Your task to perform on an android device: Go to ESPN.com Image 0: 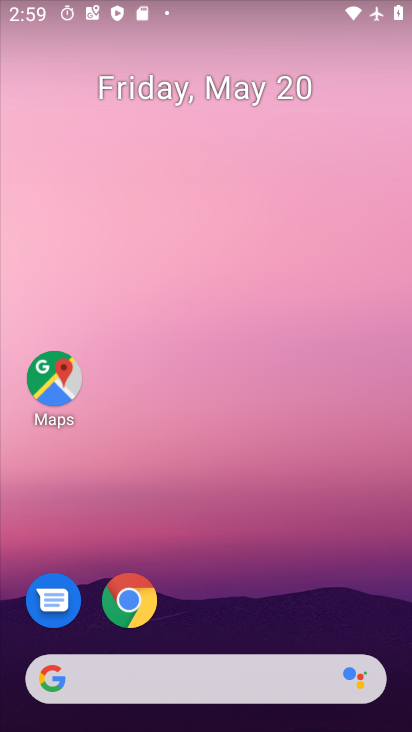
Step 0: drag from (221, 565) to (219, 10)
Your task to perform on an android device: Go to ESPN.com Image 1: 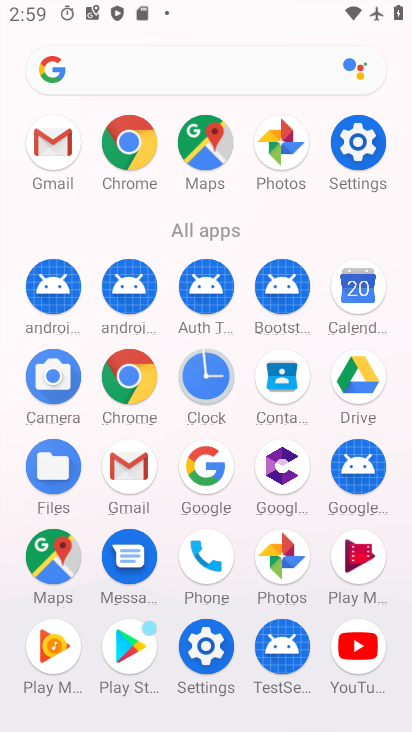
Step 1: click (119, 139)
Your task to perform on an android device: Go to ESPN.com Image 2: 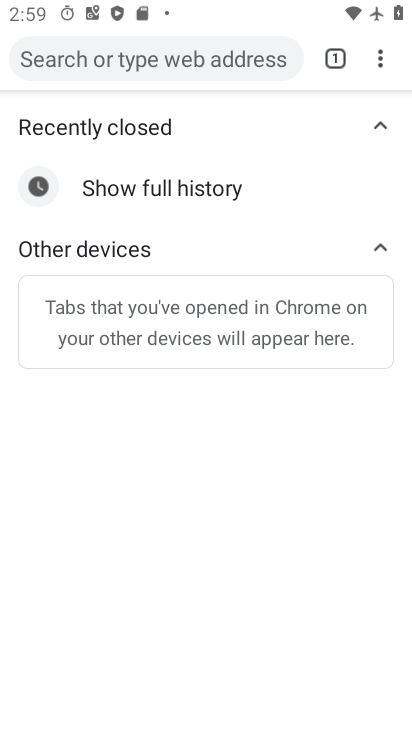
Step 2: click (170, 34)
Your task to perform on an android device: Go to ESPN.com Image 3: 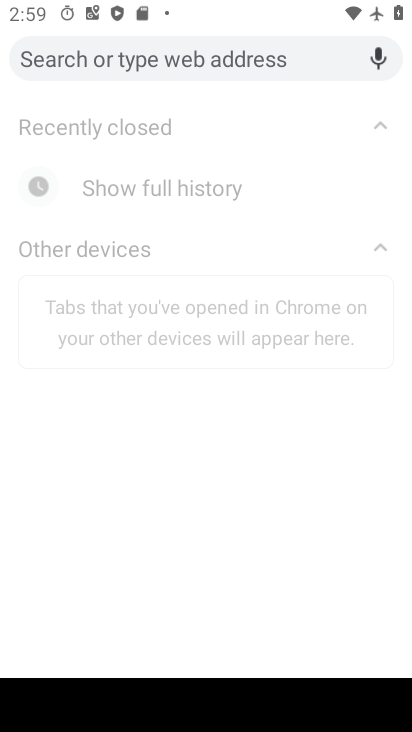
Step 3: type "ESPN.com"
Your task to perform on an android device: Go to ESPN.com Image 4: 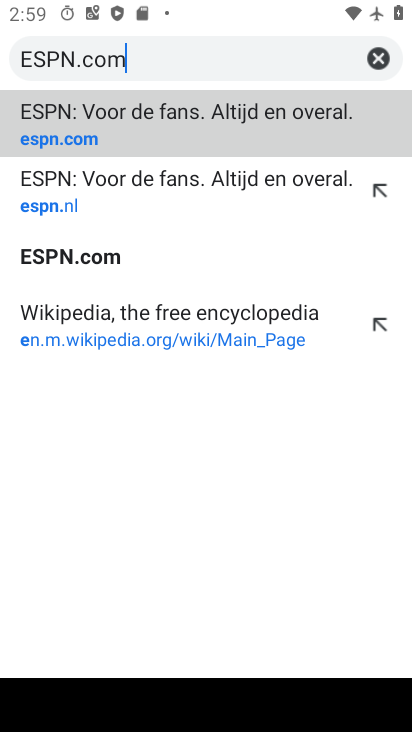
Step 4: type ""
Your task to perform on an android device: Go to ESPN.com Image 5: 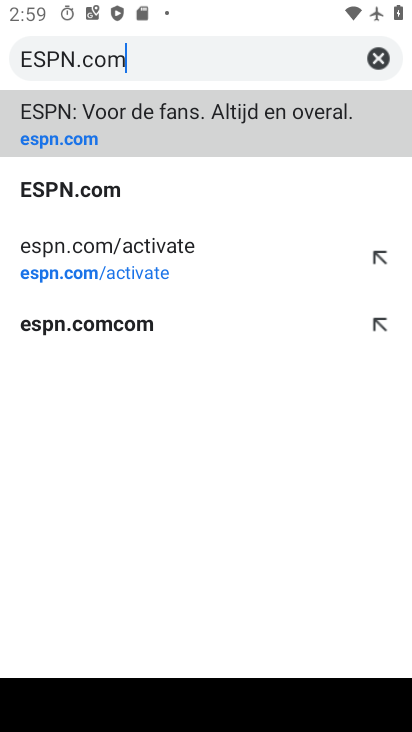
Step 5: click (83, 137)
Your task to perform on an android device: Go to ESPN.com Image 6: 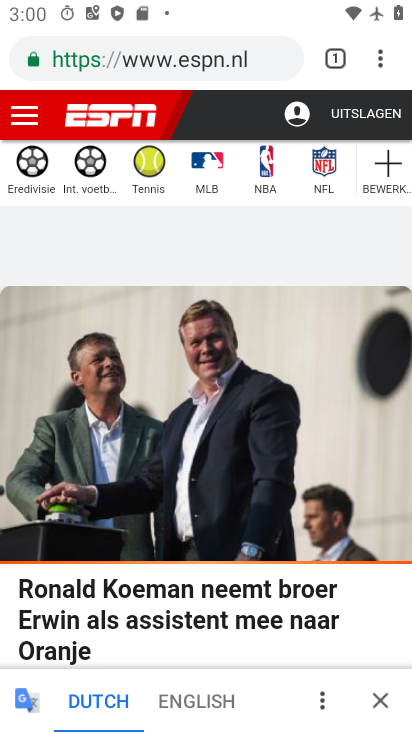
Step 6: task complete